Your task to perform on an android device: all mails in gmail Image 0: 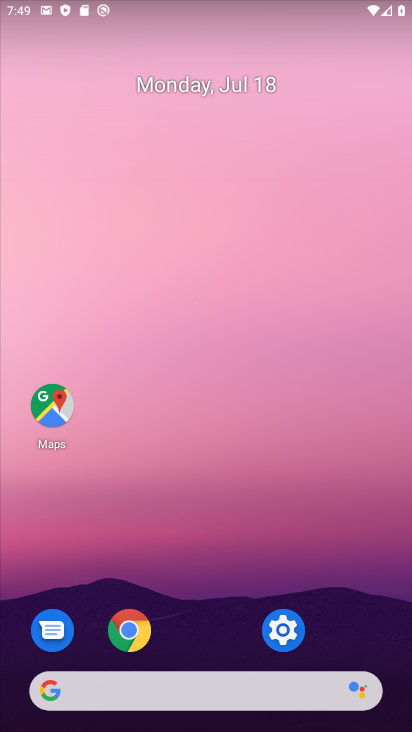
Step 0: drag from (236, 706) to (298, 135)
Your task to perform on an android device: all mails in gmail Image 1: 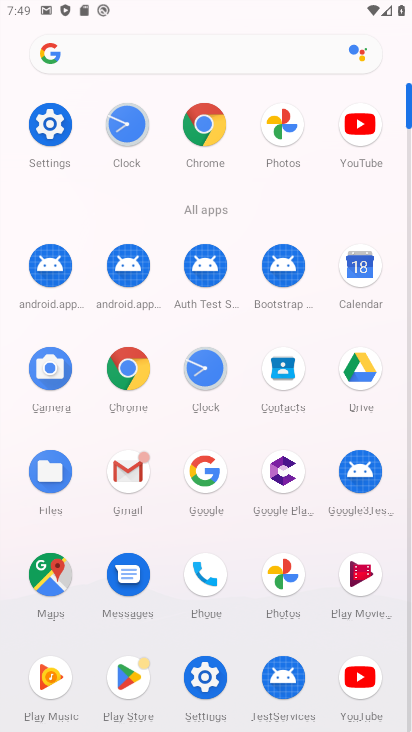
Step 1: drag from (117, 451) to (352, 631)
Your task to perform on an android device: all mails in gmail Image 2: 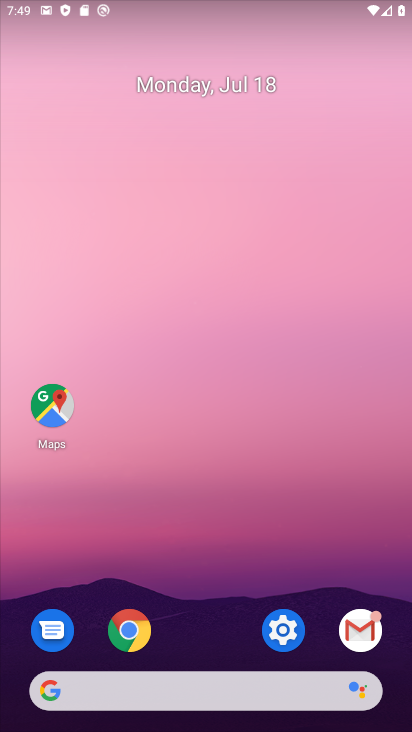
Step 2: click (349, 610)
Your task to perform on an android device: all mails in gmail Image 3: 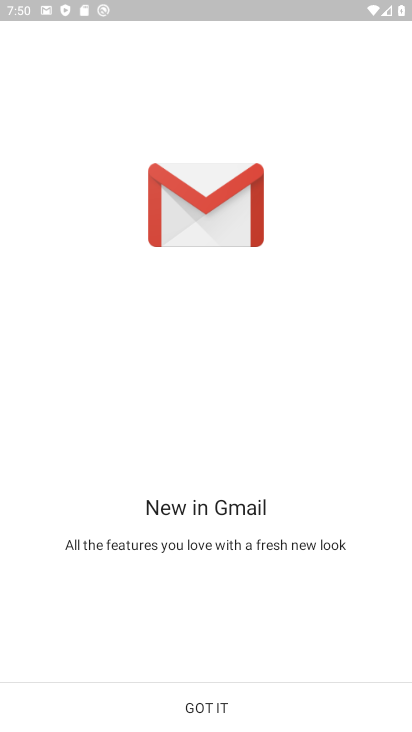
Step 3: click (183, 719)
Your task to perform on an android device: all mails in gmail Image 4: 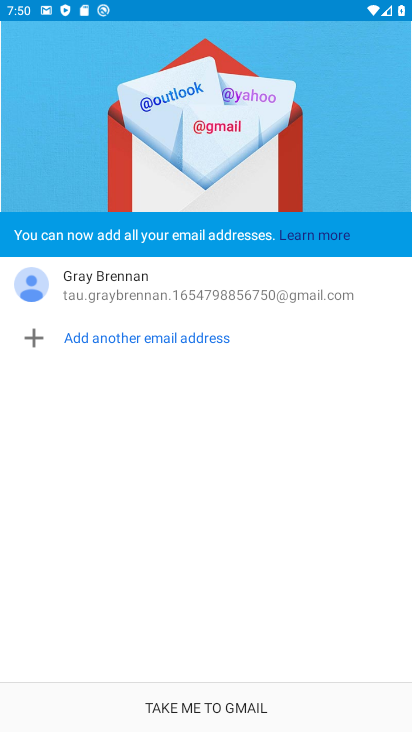
Step 4: click (200, 694)
Your task to perform on an android device: all mails in gmail Image 5: 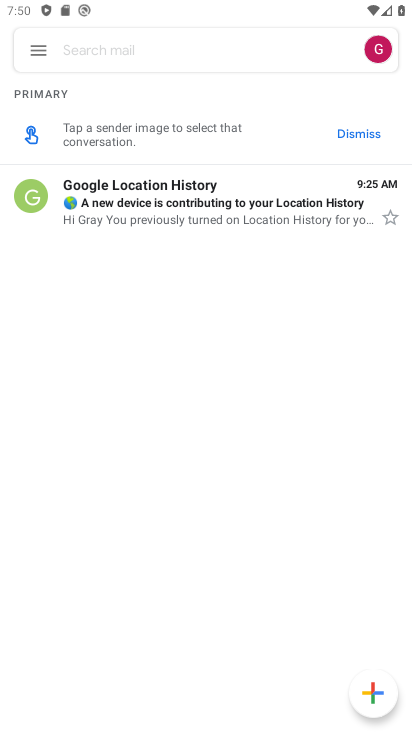
Step 5: click (341, 128)
Your task to perform on an android device: all mails in gmail Image 6: 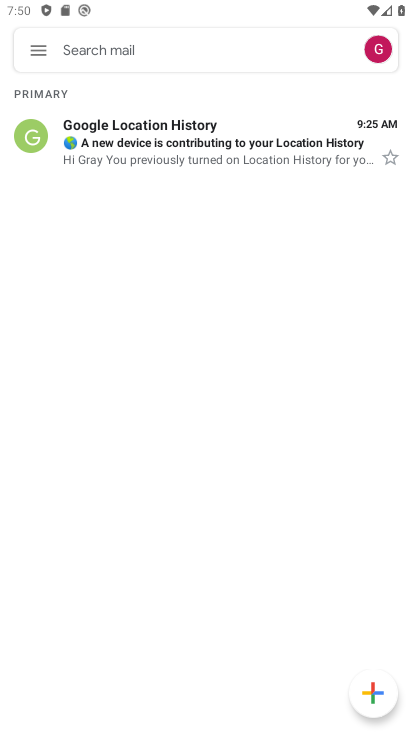
Step 6: click (25, 48)
Your task to perform on an android device: all mails in gmail Image 7: 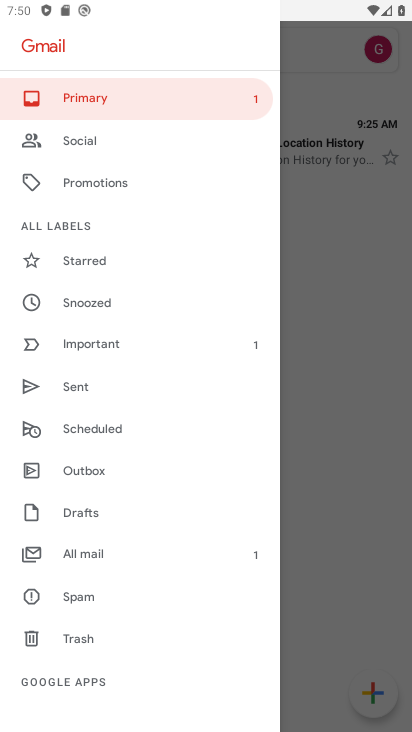
Step 7: click (102, 555)
Your task to perform on an android device: all mails in gmail Image 8: 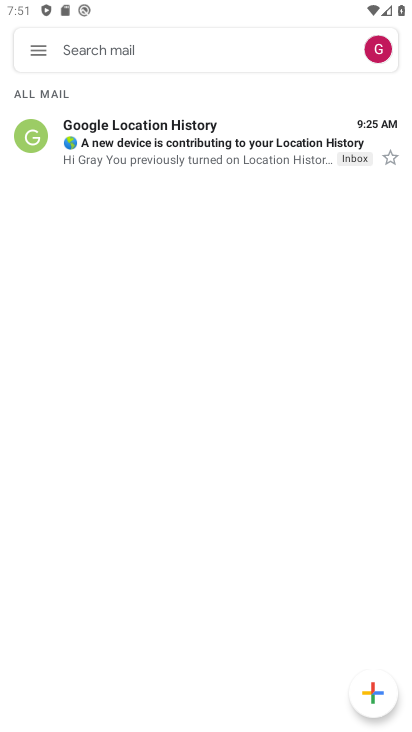
Step 8: click (31, 50)
Your task to perform on an android device: all mails in gmail Image 9: 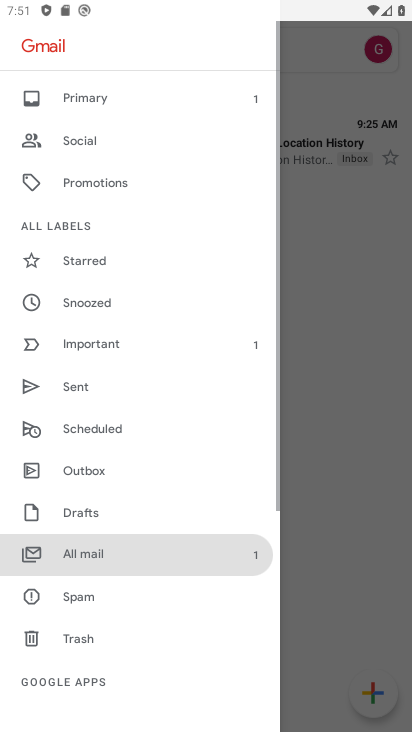
Step 9: click (128, 560)
Your task to perform on an android device: all mails in gmail Image 10: 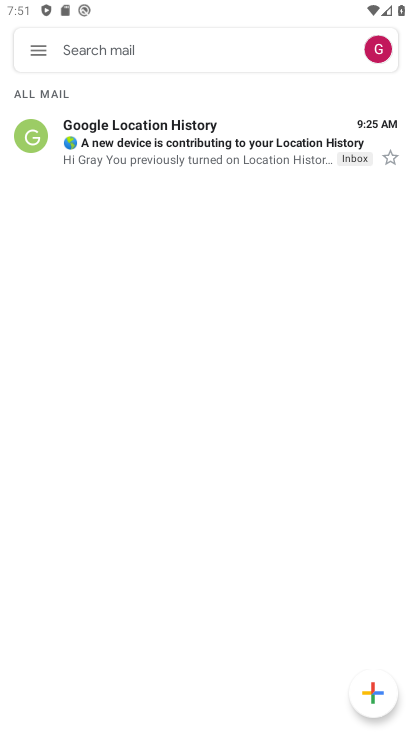
Step 10: task complete